Your task to perform on an android device: find snoozed emails in the gmail app Image 0: 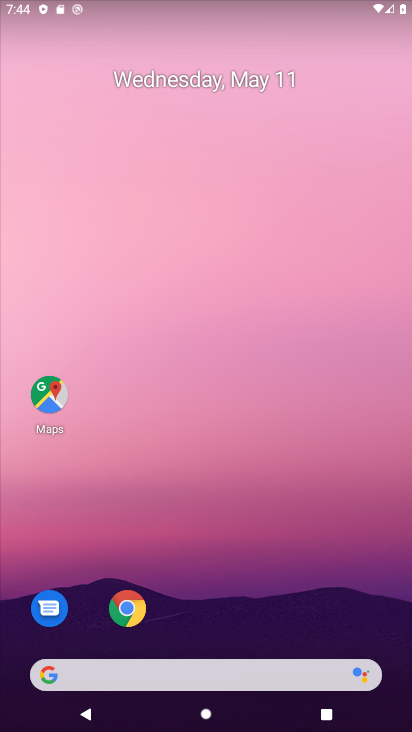
Step 0: drag from (299, 624) to (302, 222)
Your task to perform on an android device: find snoozed emails in the gmail app Image 1: 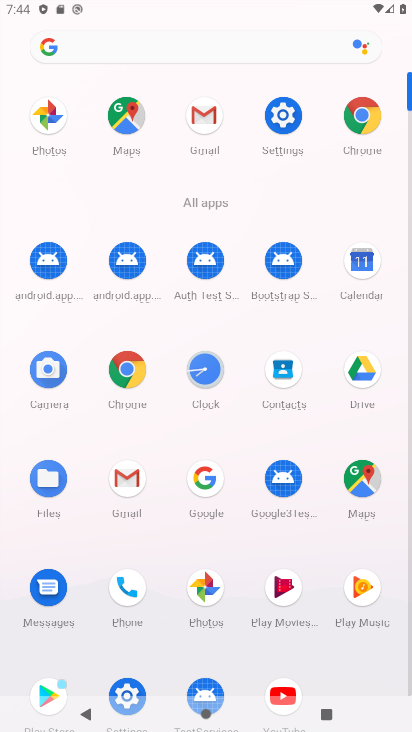
Step 1: click (213, 146)
Your task to perform on an android device: find snoozed emails in the gmail app Image 2: 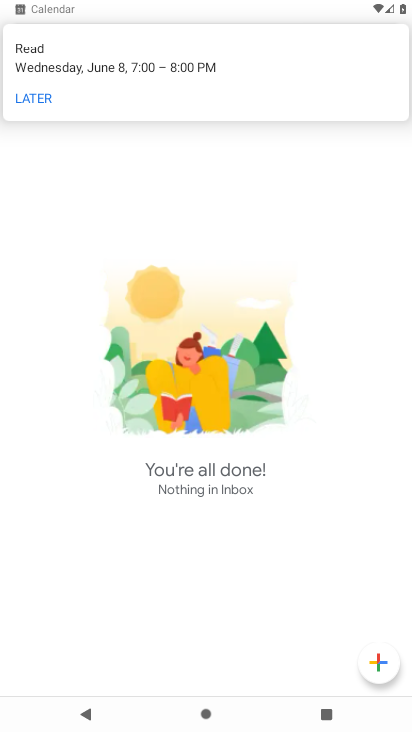
Step 2: click (25, 104)
Your task to perform on an android device: find snoozed emails in the gmail app Image 3: 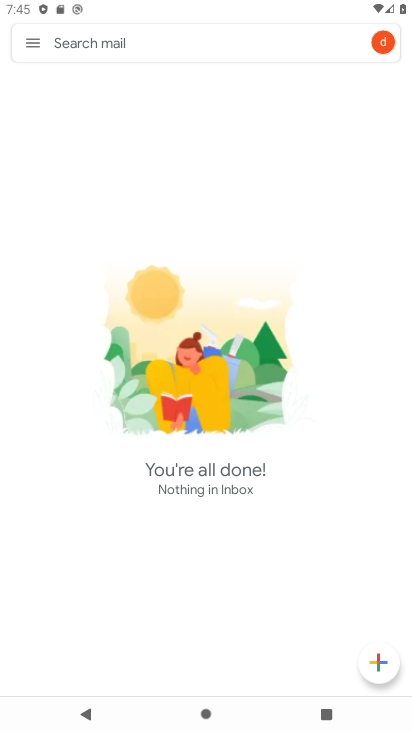
Step 3: click (20, 44)
Your task to perform on an android device: find snoozed emails in the gmail app Image 4: 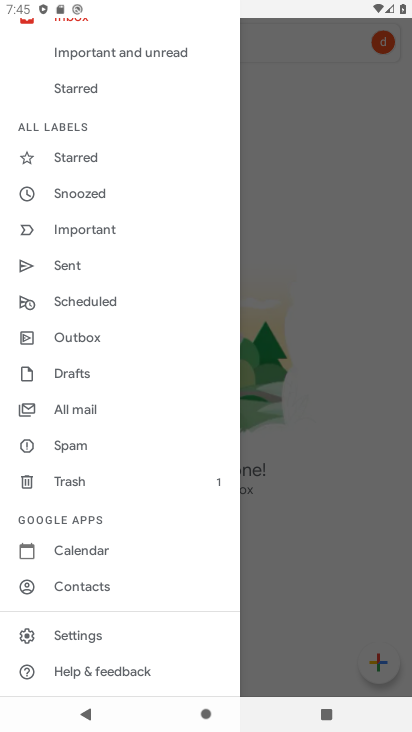
Step 4: drag from (88, 442) to (95, 318)
Your task to perform on an android device: find snoozed emails in the gmail app Image 5: 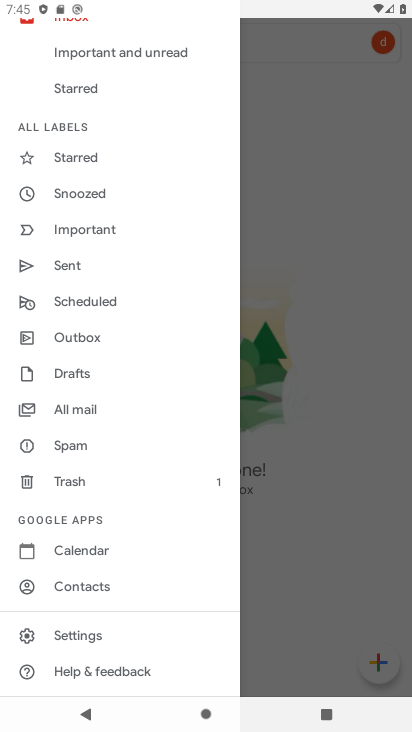
Step 5: click (111, 200)
Your task to perform on an android device: find snoozed emails in the gmail app Image 6: 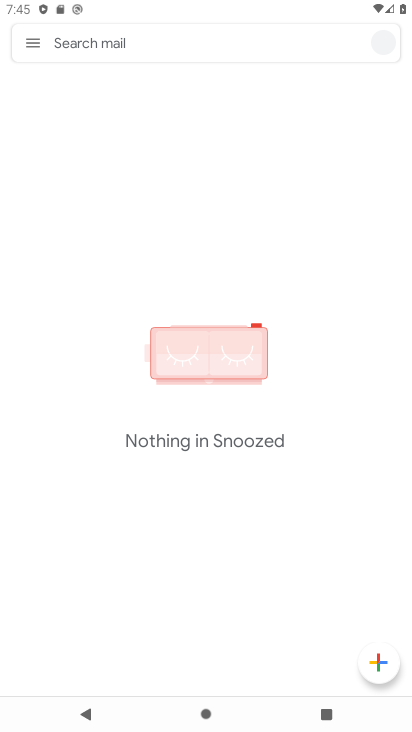
Step 6: task complete